Your task to perform on an android device: remove spam from my inbox in the gmail app Image 0: 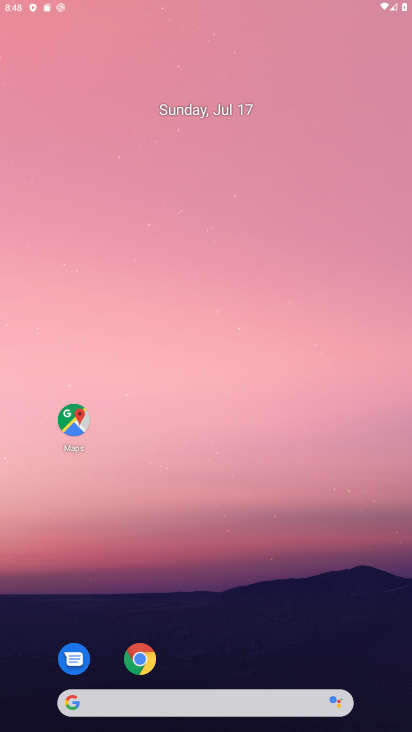
Step 0: click (195, 692)
Your task to perform on an android device: remove spam from my inbox in the gmail app Image 1: 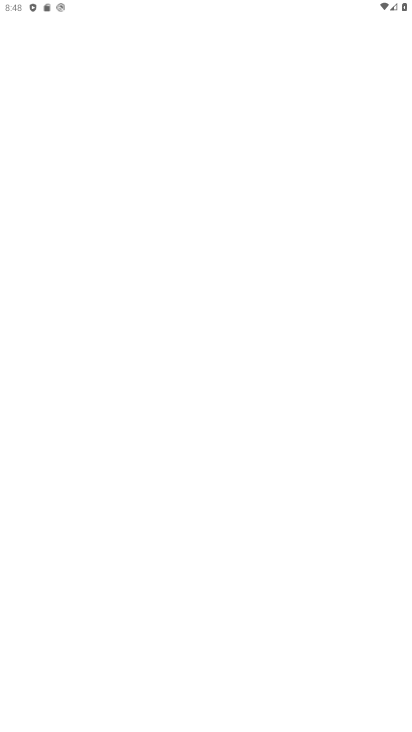
Step 1: press home button
Your task to perform on an android device: remove spam from my inbox in the gmail app Image 2: 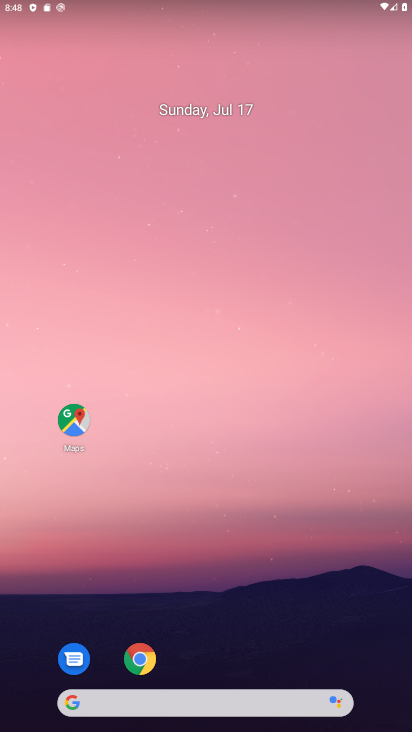
Step 2: drag from (229, 614) to (165, 165)
Your task to perform on an android device: remove spam from my inbox in the gmail app Image 3: 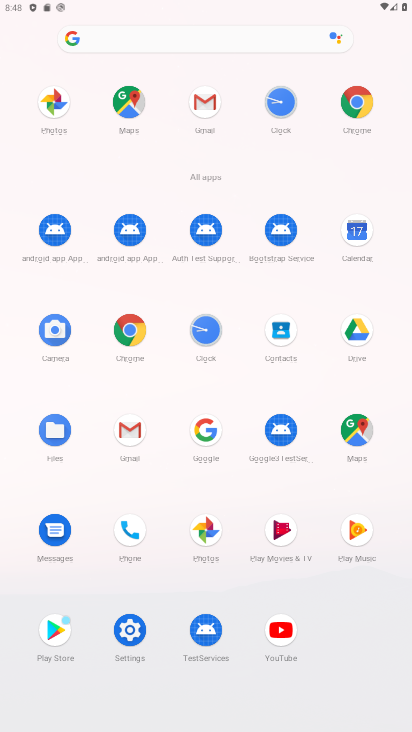
Step 3: click (199, 100)
Your task to perform on an android device: remove spam from my inbox in the gmail app Image 4: 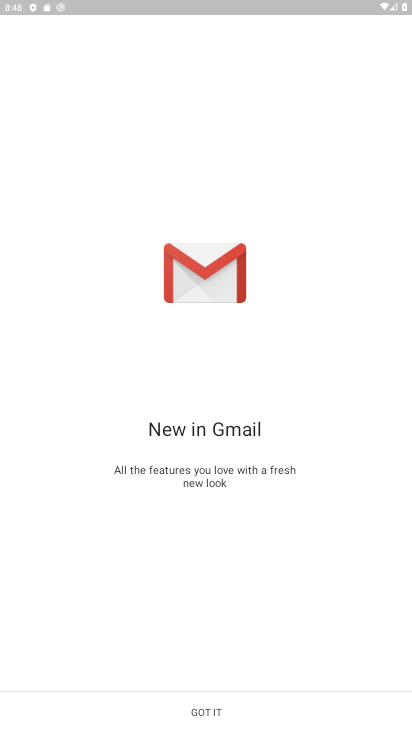
Step 4: click (196, 713)
Your task to perform on an android device: remove spam from my inbox in the gmail app Image 5: 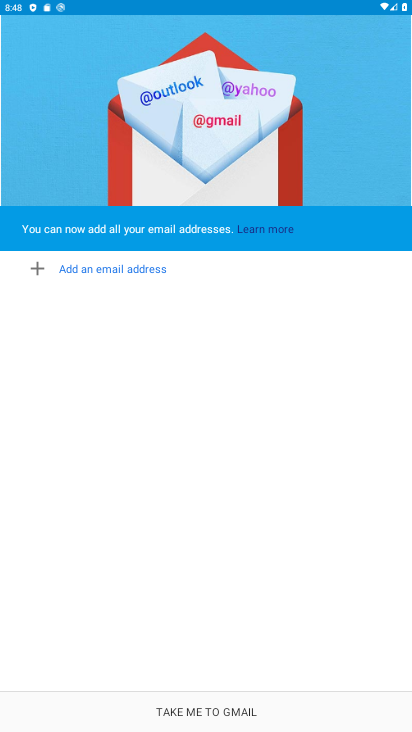
Step 5: click (207, 711)
Your task to perform on an android device: remove spam from my inbox in the gmail app Image 6: 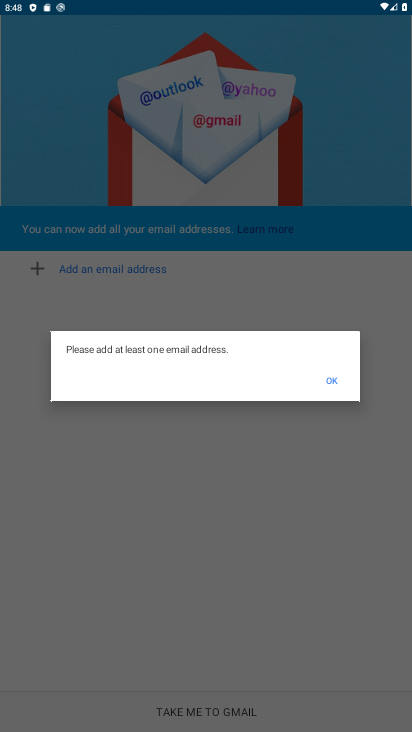
Step 6: click (330, 375)
Your task to perform on an android device: remove spam from my inbox in the gmail app Image 7: 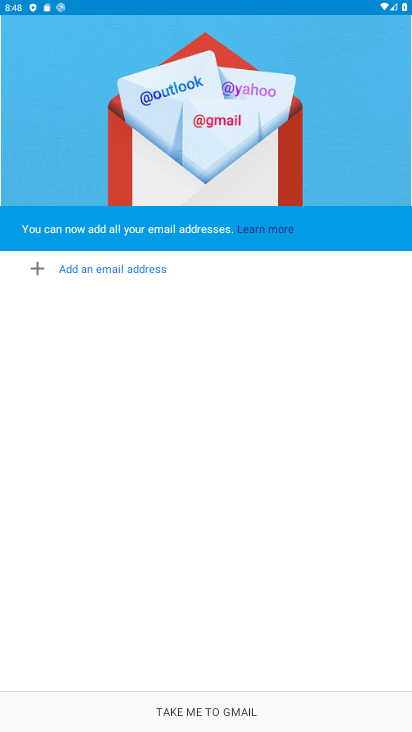
Step 7: click (227, 710)
Your task to perform on an android device: remove spam from my inbox in the gmail app Image 8: 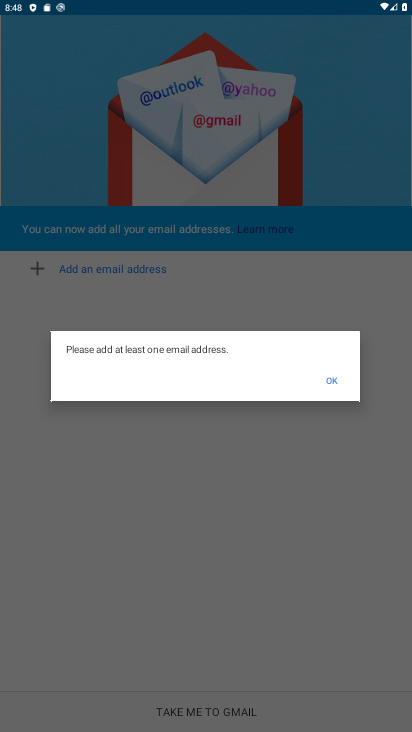
Step 8: click (334, 379)
Your task to perform on an android device: remove spam from my inbox in the gmail app Image 9: 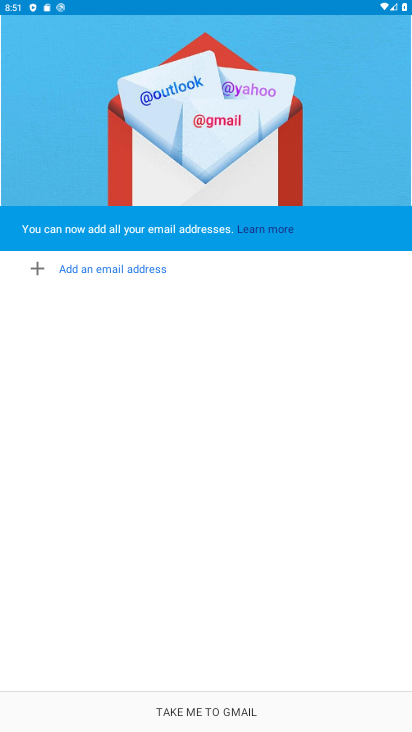
Step 9: task complete